Your task to perform on an android device: change keyboard looks Image 0: 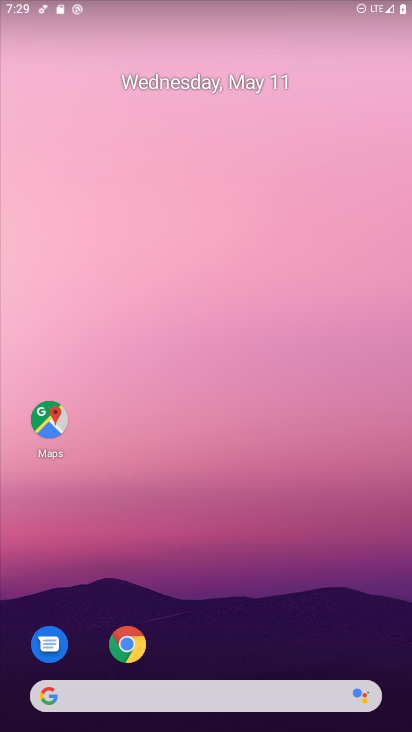
Step 0: drag from (227, 578) to (176, 108)
Your task to perform on an android device: change keyboard looks Image 1: 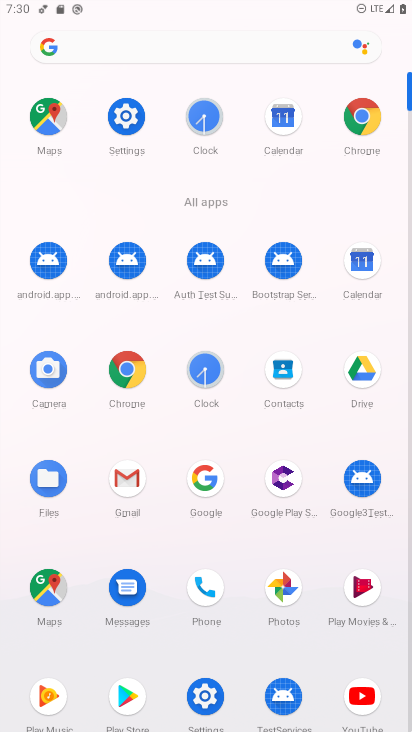
Step 1: click (201, 691)
Your task to perform on an android device: change keyboard looks Image 2: 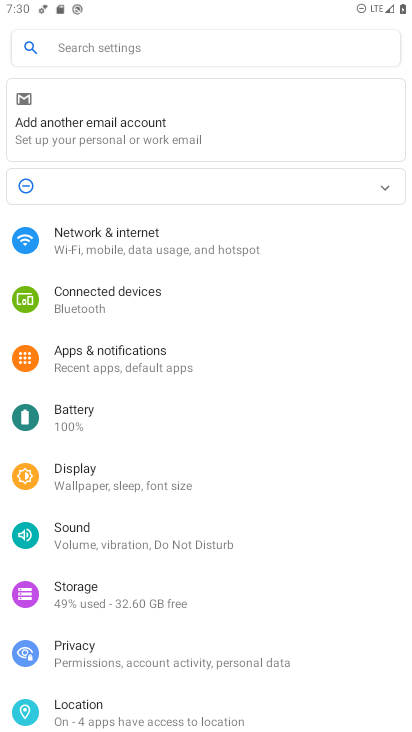
Step 2: drag from (257, 606) to (283, 280)
Your task to perform on an android device: change keyboard looks Image 3: 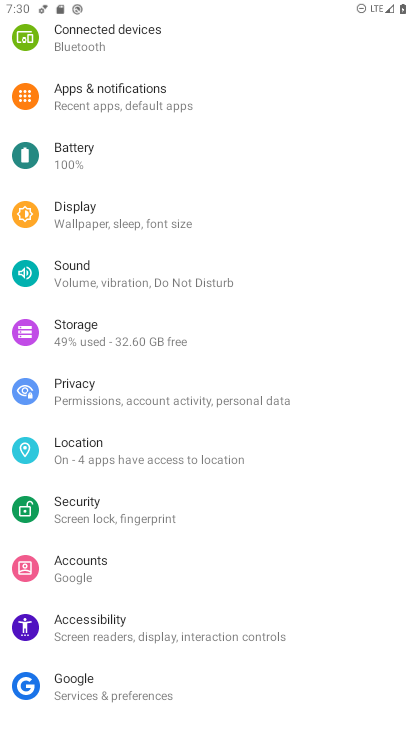
Step 3: drag from (201, 685) to (205, 400)
Your task to perform on an android device: change keyboard looks Image 4: 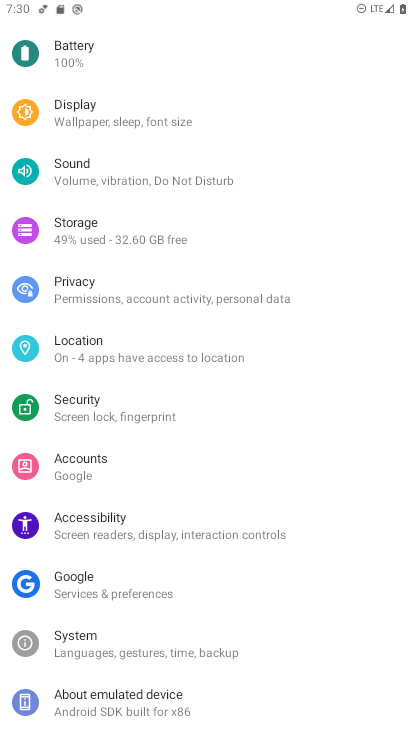
Step 4: drag from (234, 627) to (189, 330)
Your task to perform on an android device: change keyboard looks Image 5: 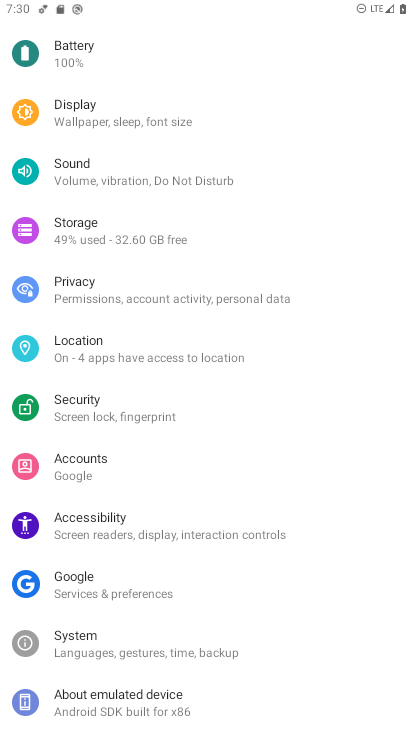
Step 5: click (78, 633)
Your task to perform on an android device: change keyboard looks Image 6: 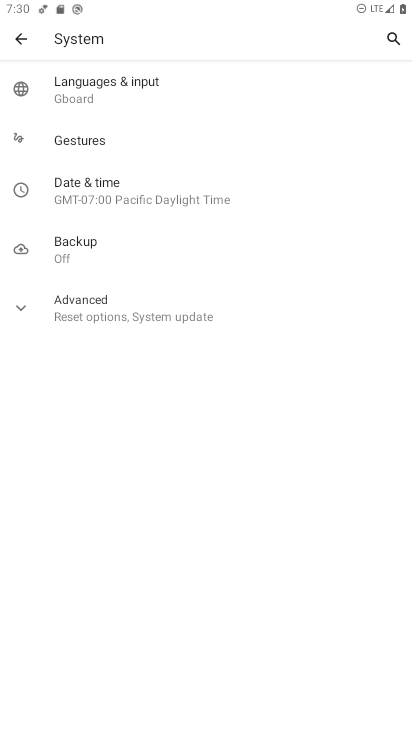
Step 6: click (70, 90)
Your task to perform on an android device: change keyboard looks Image 7: 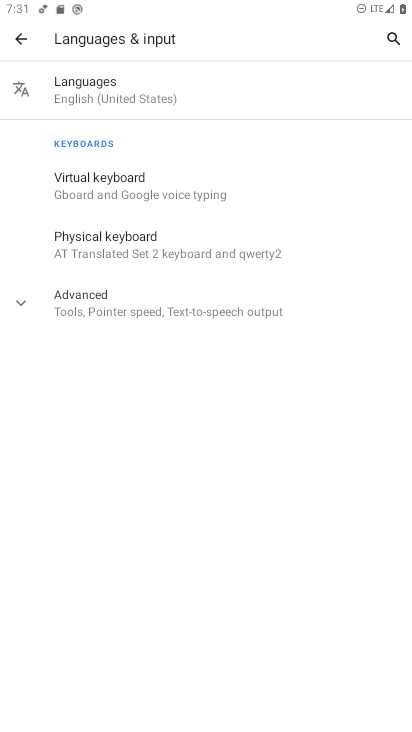
Step 7: click (89, 178)
Your task to perform on an android device: change keyboard looks Image 8: 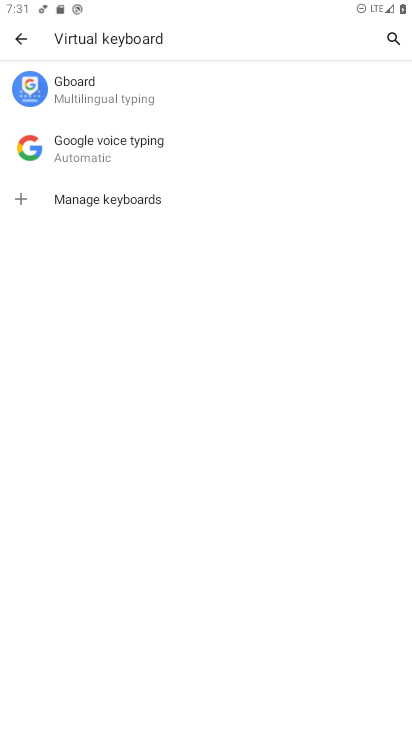
Step 8: click (72, 88)
Your task to perform on an android device: change keyboard looks Image 9: 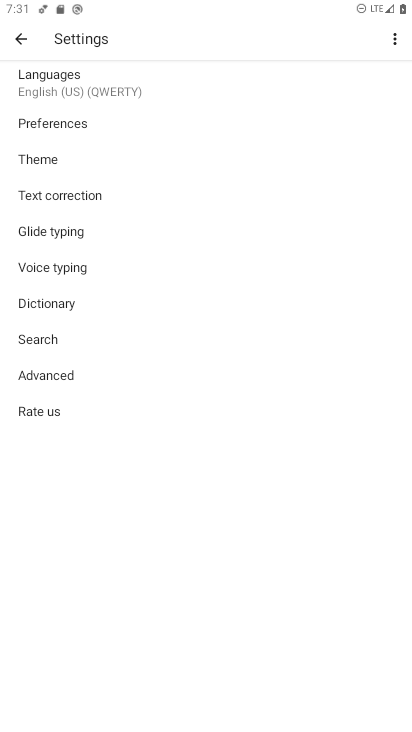
Step 9: click (41, 157)
Your task to perform on an android device: change keyboard looks Image 10: 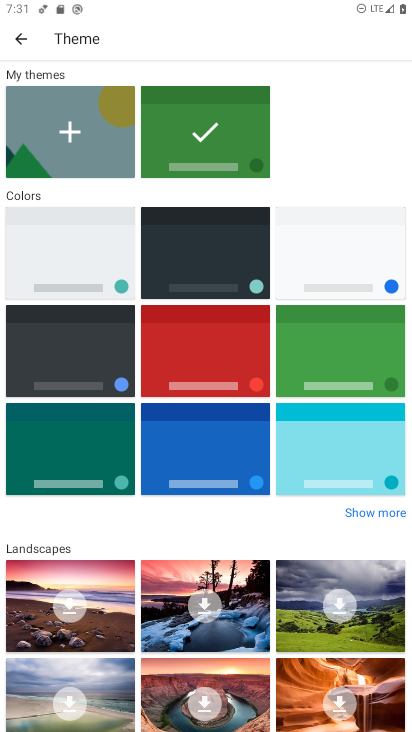
Step 10: click (88, 439)
Your task to perform on an android device: change keyboard looks Image 11: 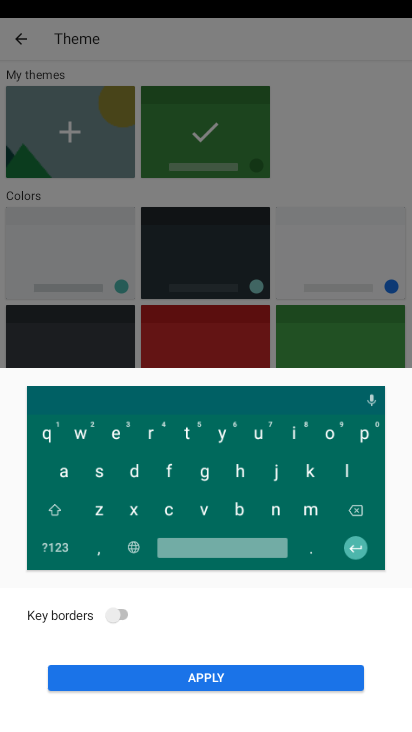
Step 11: click (226, 679)
Your task to perform on an android device: change keyboard looks Image 12: 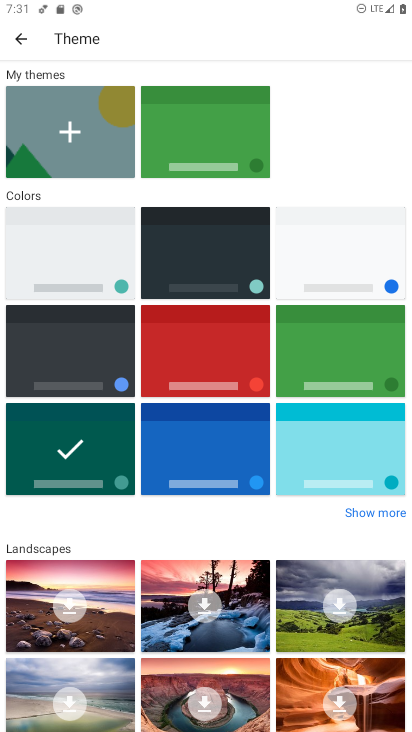
Step 12: task complete